Your task to perform on an android device: see sites visited before in the chrome app Image 0: 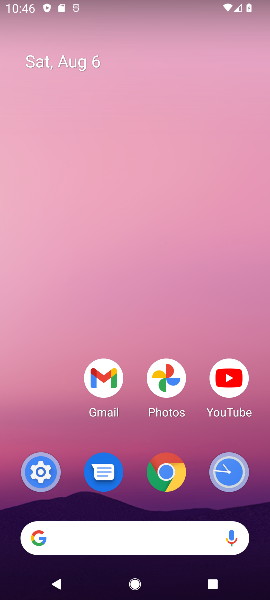
Step 0: press back button
Your task to perform on an android device: see sites visited before in the chrome app Image 1: 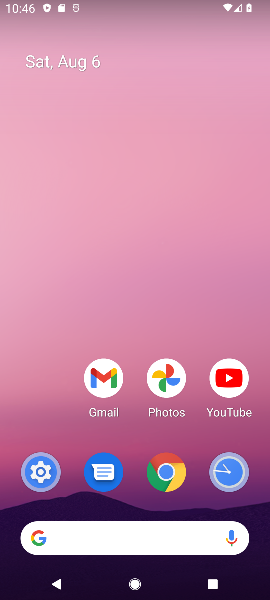
Step 1: click (101, 176)
Your task to perform on an android device: see sites visited before in the chrome app Image 2: 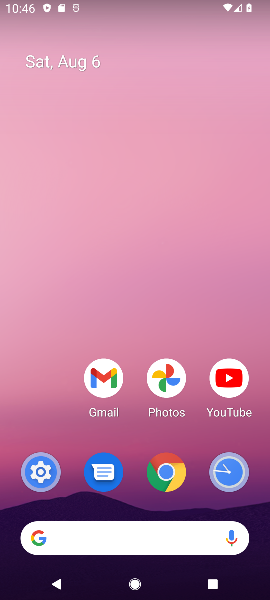
Step 2: drag from (123, 380) to (80, 127)
Your task to perform on an android device: see sites visited before in the chrome app Image 3: 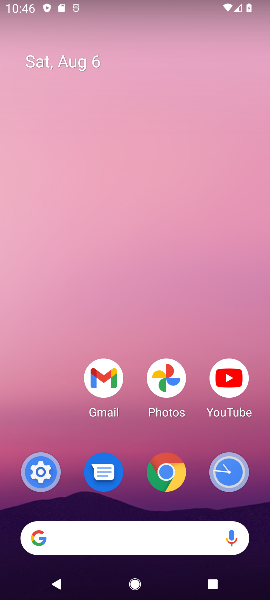
Step 3: drag from (144, 458) to (148, 93)
Your task to perform on an android device: see sites visited before in the chrome app Image 4: 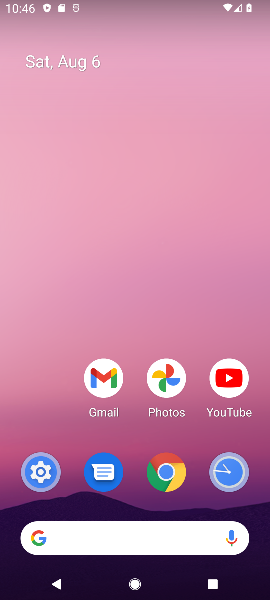
Step 4: drag from (201, 421) to (179, 107)
Your task to perform on an android device: see sites visited before in the chrome app Image 5: 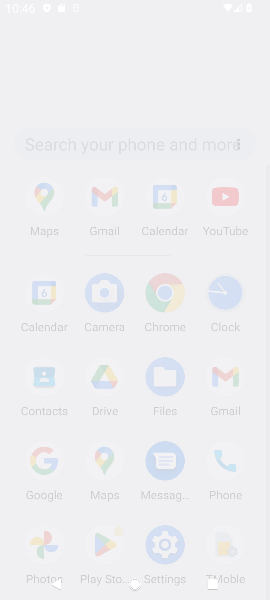
Step 5: drag from (177, 448) to (136, 71)
Your task to perform on an android device: see sites visited before in the chrome app Image 6: 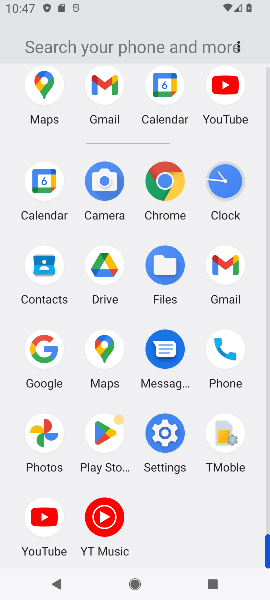
Step 6: click (102, 353)
Your task to perform on an android device: see sites visited before in the chrome app Image 7: 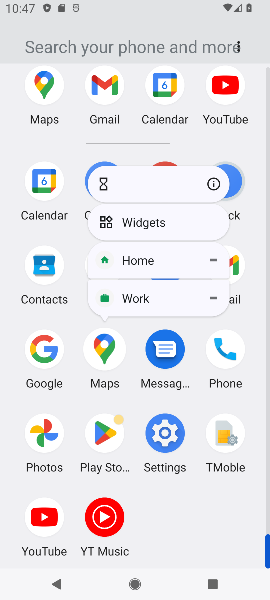
Step 7: click (101, 354)
Your task to perform on an android device: see sites visited before in the chrome app Image 8: 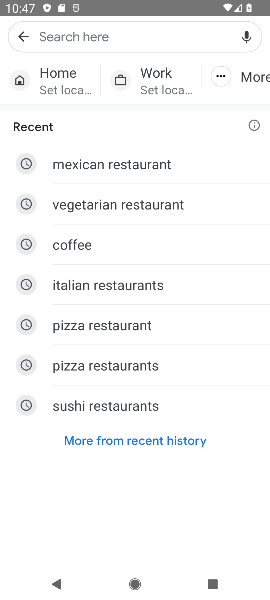
Step 8: click (23, 34)
Your task to perform on an android device: see sites visited before in the chrome app Image 9: 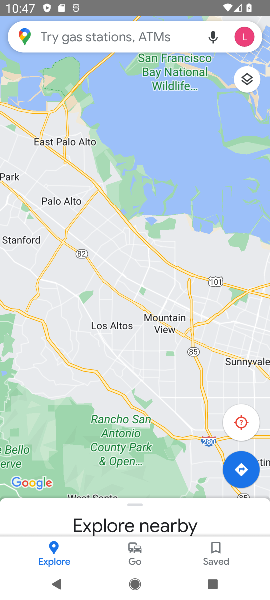
Step 9: press back button
Your task to perform on an android device: see sites visited before in the chrome app Image 10: 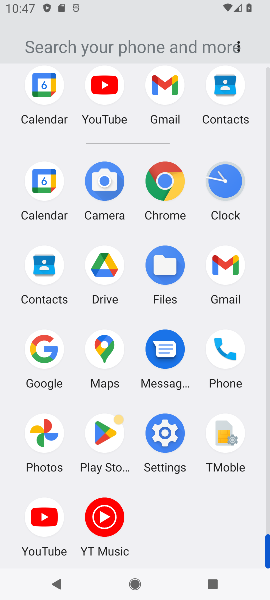
Step 10: drag from (159, 392) to (115, 184)
Your task to perform on an android device: see sites visited before in the chrome app Image 11: 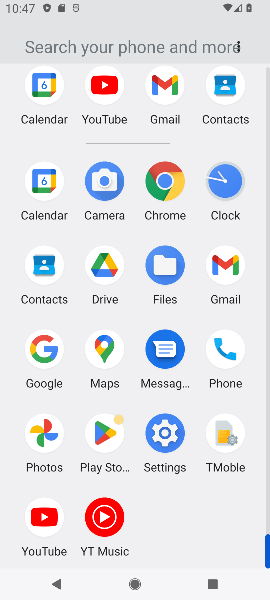
Step 11: click (168, 191)
Your task to perform on an android device: see sites visited before in the chrome app Image 12: 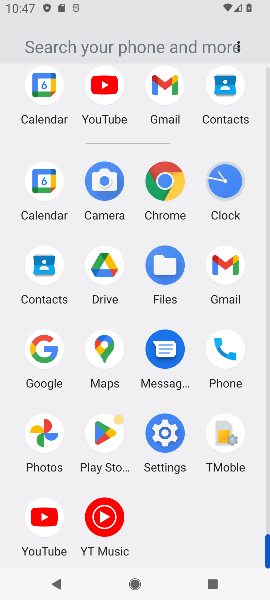
Step 12: click (168, 191)
Your task to perform on an android device: see sites visited before in the chrome app Image 13: 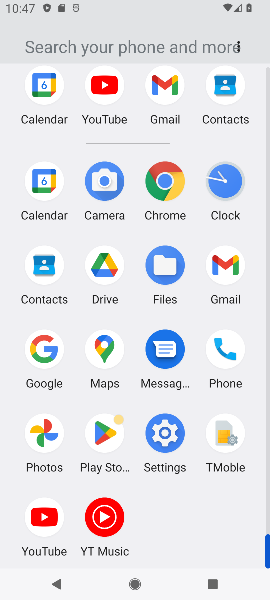
Step 13: click (168, 191)
Your task to perform on an android device: see sites visited before in the chrome app Image 14: 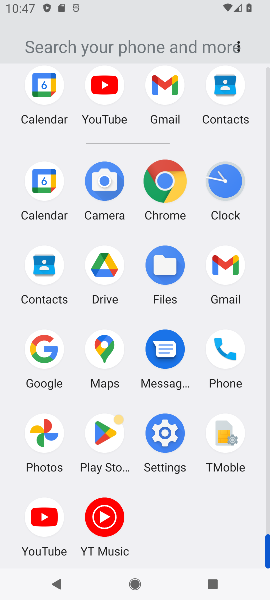
Step 14: click (168, 190)
Your task to perform on an android device: see sites visited before in the chrome app Image 15: 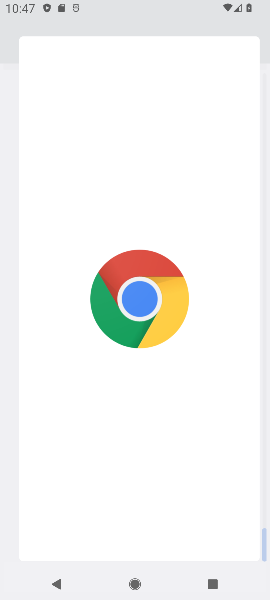
Step 15: click (168, 190)
Your task to perform on an android device: see sites visited before in the chrome app Image 16: 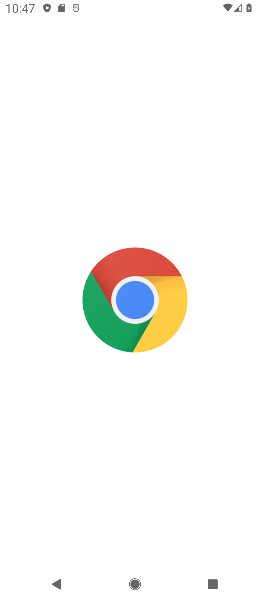
Step 16: click (168, 190)
Your task to perform on an android device: see sites visited before in the chrome app Image 17: 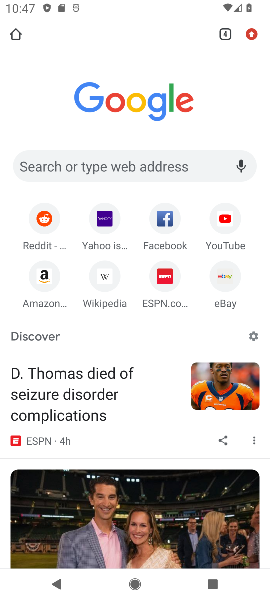
Step 17: drag from (244, 33) to (235, 276)
Your task to perform on an android device: see sites visited before in the chrome app Image 18: 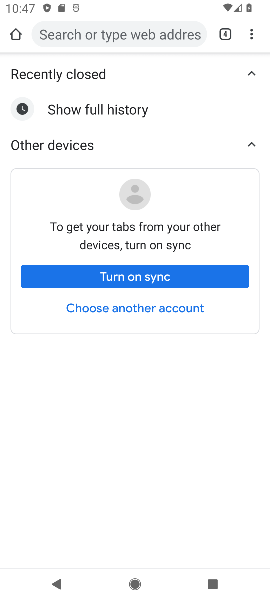
Step 18: drag from (247, 38) to (210, 335)
Your task to perform on an android device: see sites visited before in the chrome app Image 19: 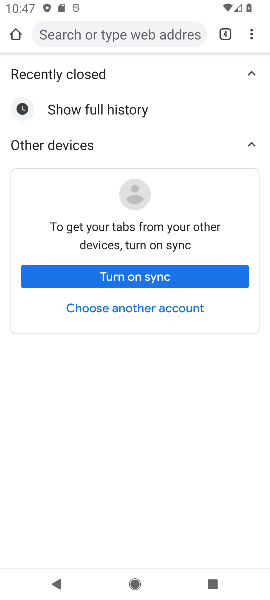
Step 19: click (251, 31)
Your task to perform on an android device: see sites visited before in the chrome app Image 20: 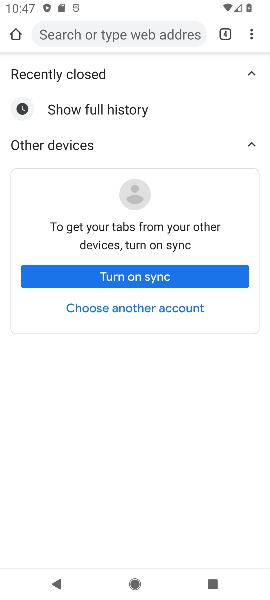
Step 20: click (251, 31)
Your task to perform on an android device: see sites visited before in the chrome app Image 21: 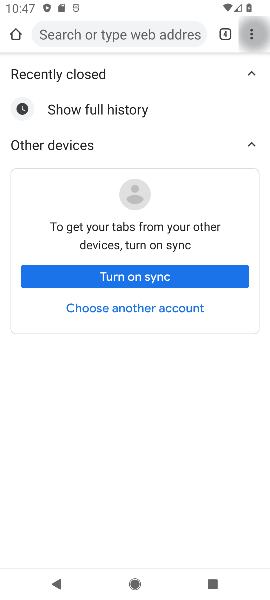
Step 21: click (250, 34)
Your task to perform on an android device: see sites visited before in the chrome app Image 22: 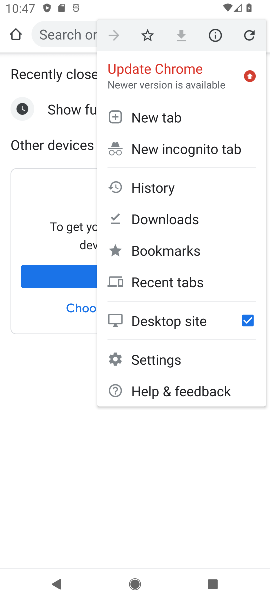
Step 22: click (166, 274)
Your task to perform on an android device: see sites visited before in the chrome app Image 23: 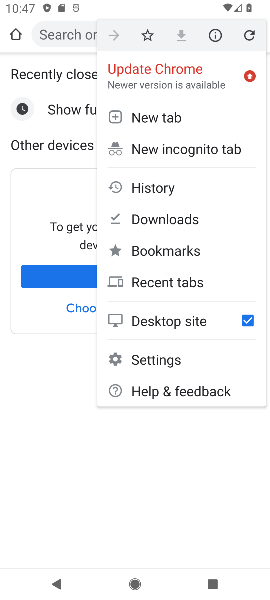
Step 23: click (166, 274)
Your task to perform on an android device: see sites visited before in the chrome app Image 24: 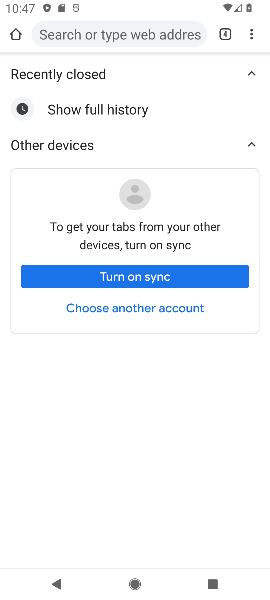
Step 24: click (169, 276)
Your task to perform on an android device: see sites visited before in the chrome app Image 25: 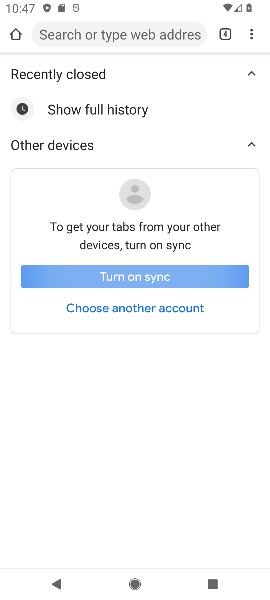
Step 25: click (169, 276)
Your task to perform on an android device: see sites visited before in the chrome app Image 26: 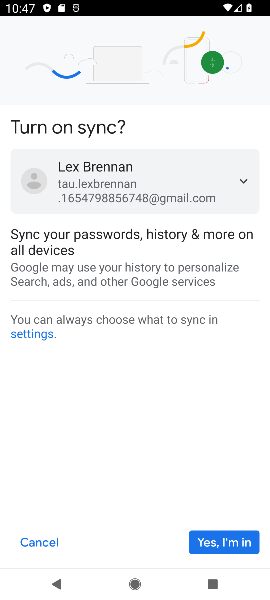
Step 26: task complete